Your task to perform on an android device: Open sound settings Image 0: 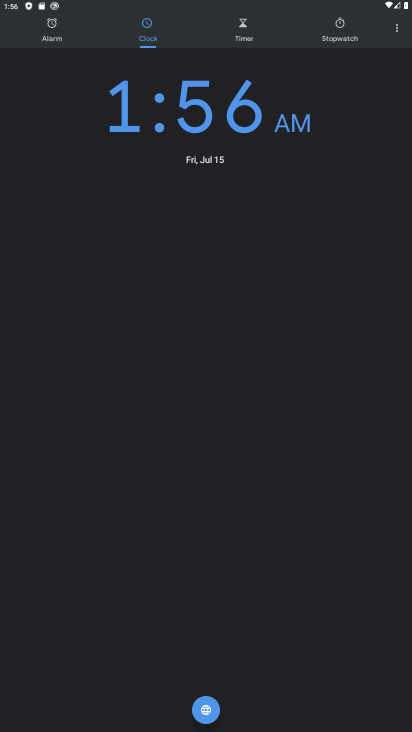
Step 0: press home button
Your task to perform on an android device: Open sound settings Image 1: 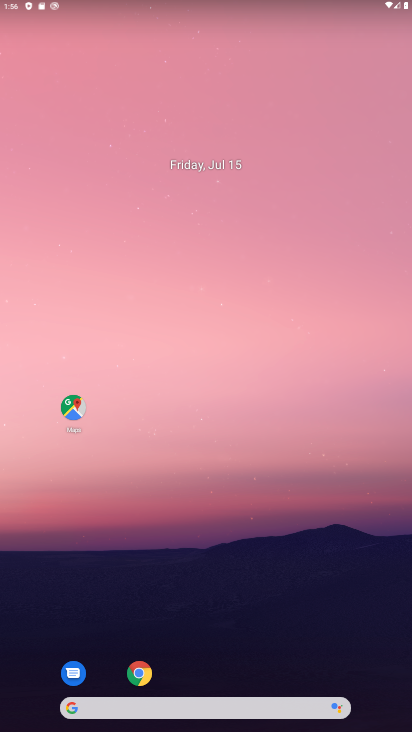
Step 1: drag from (299, 680) to (396, 222)
Your task to perform on an android device: Open sound settings Image 2: 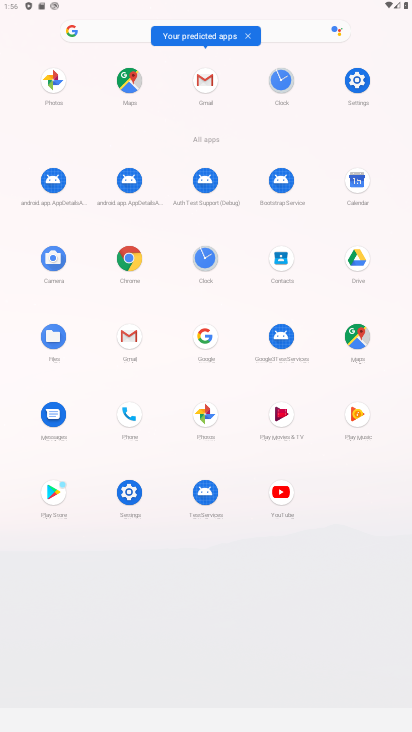
Step 2: click (117, 486)
Your task to perform on an android device: Open sound settings Image 3: 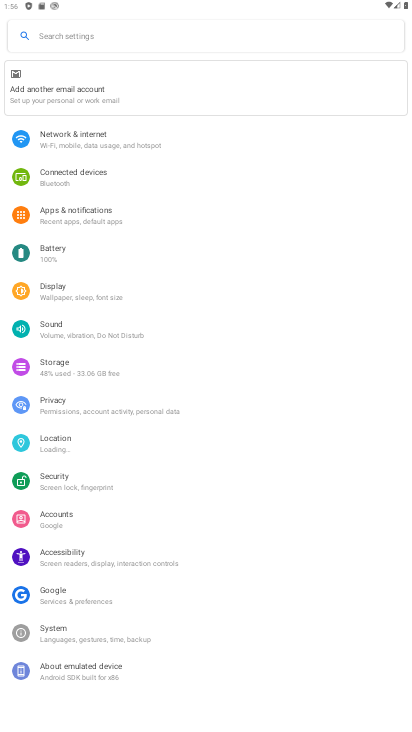
Step 3: click (50, 338)
Your task to perform on an android device: Open sound settings Image 4: 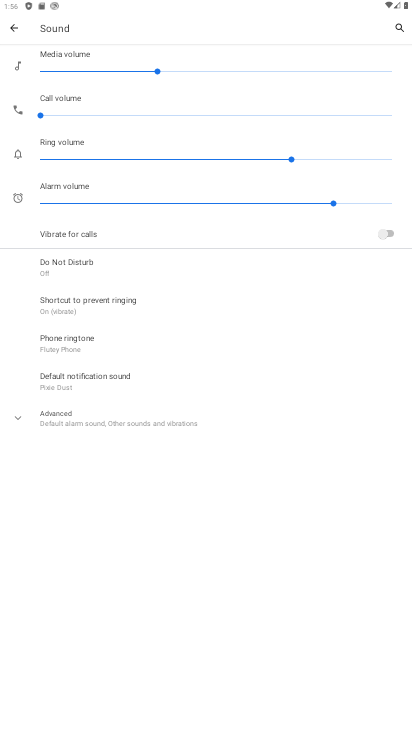
Step 4: task complete